Your task to perform on an android device: toggle notifications settings in the gmail app Image 0: 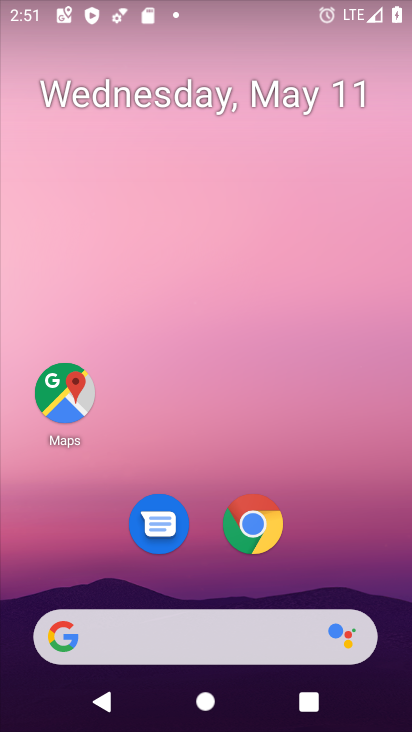
Step 0: drag from (309, 516) to (320, 12)
Your task to perform on an android device: toggle notifications settings in the gmail app Image 1: 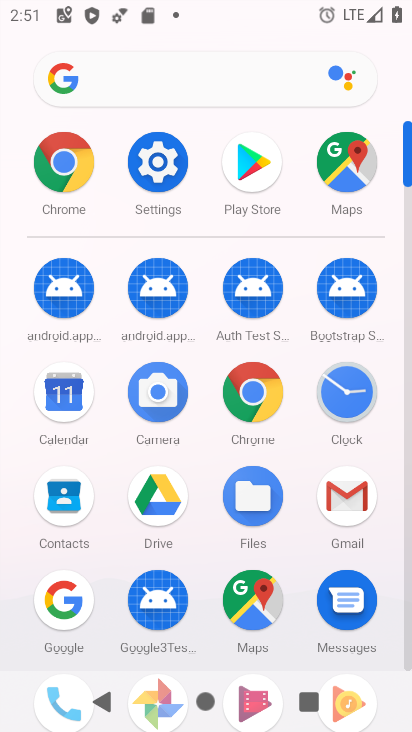
Step 1: click (350, 488)
Your task to perform on an android device: toggle notifications settings in the gmail app Image 2: 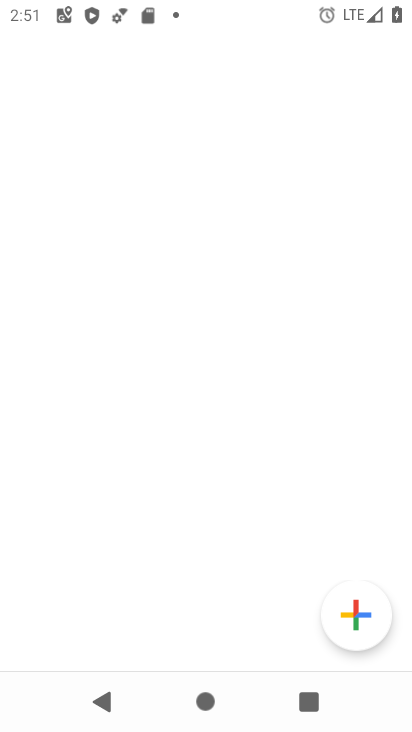
Step 2: click (350, 488)
Your task to perform on an android device: toggle notifications settings in the gmail app Image 3: 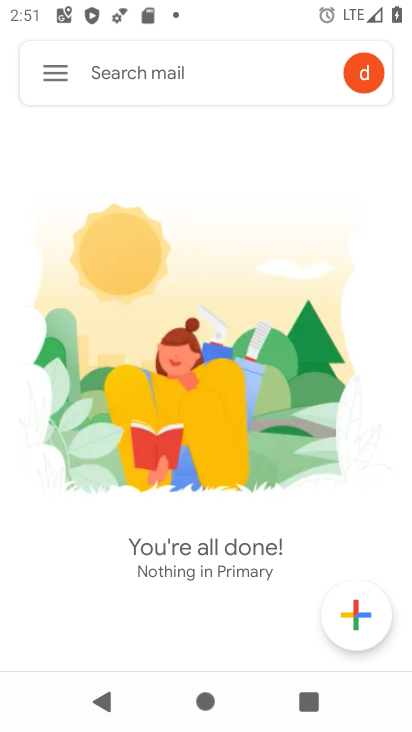
Step 3: click (58, 73)
Your task to perform on an android device: toggle notifications settings in the gmail app Image 4: 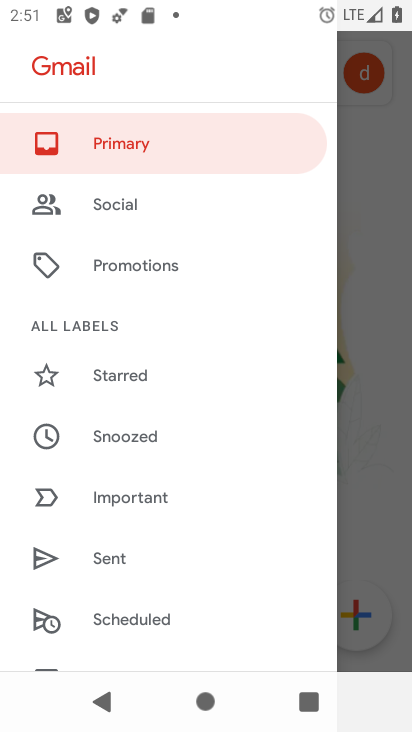
Step 4: drag from (179, 544) to (231, 58)
Your task to perform on an android device: toggle notifications settings in the gmail app Image 5: 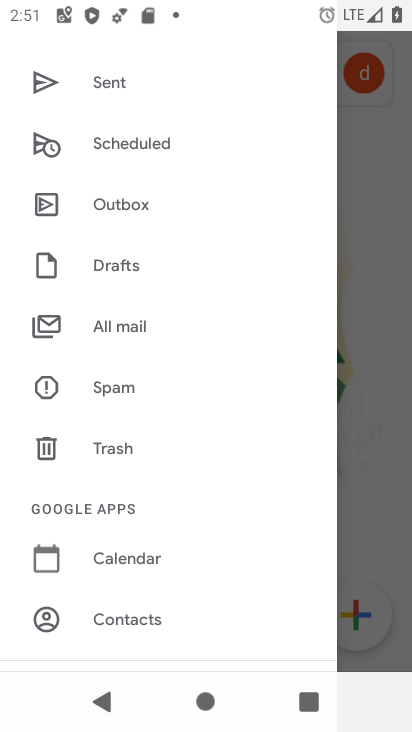
Step 5: drag from (190, 560) to (200, 219)
Your task to perform on an android device: toggle notifications settings in the gmail app Image 6: 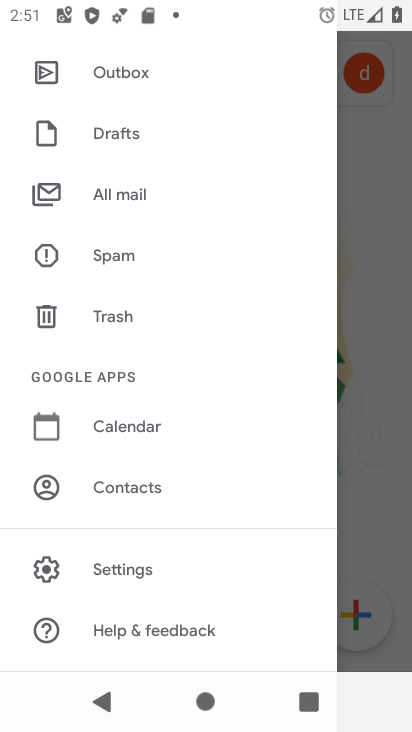
Step 6: click (108, 555)
Your task to perform on an android device: toggle notifications settings in the gmail app Image 7: 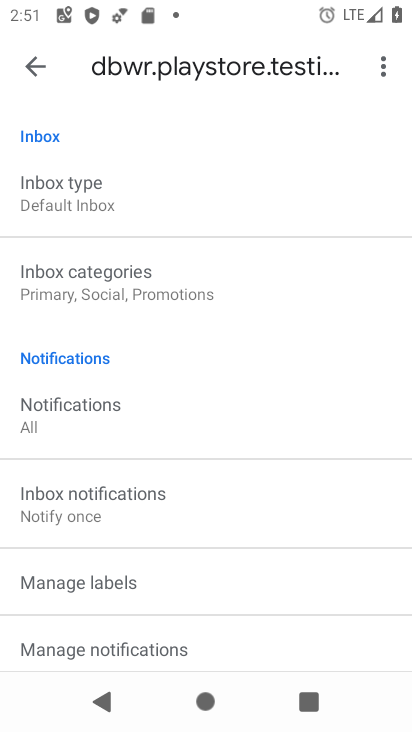
Step 7: click (171, 643)
Your task to perform on an android device: toggle notifications settings in the gmail app Image 8: 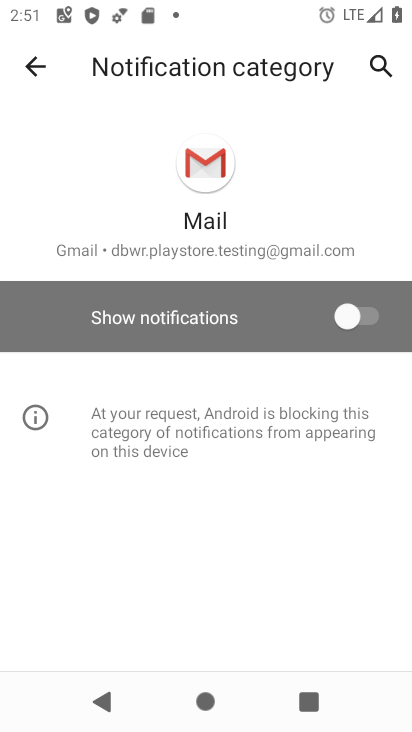
Step 8: click (370, 309)
Your task to perform on an android device: toggle notifications settings in the gmail app Image 9: 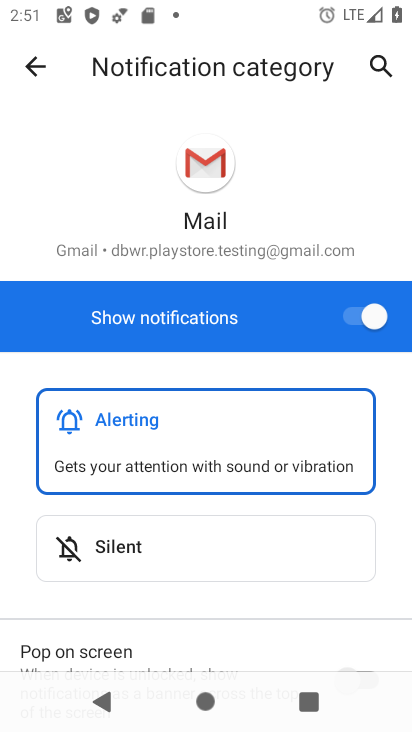
Step 9: task complete